Your task to perform on an android device: change notifications settings Image 0: 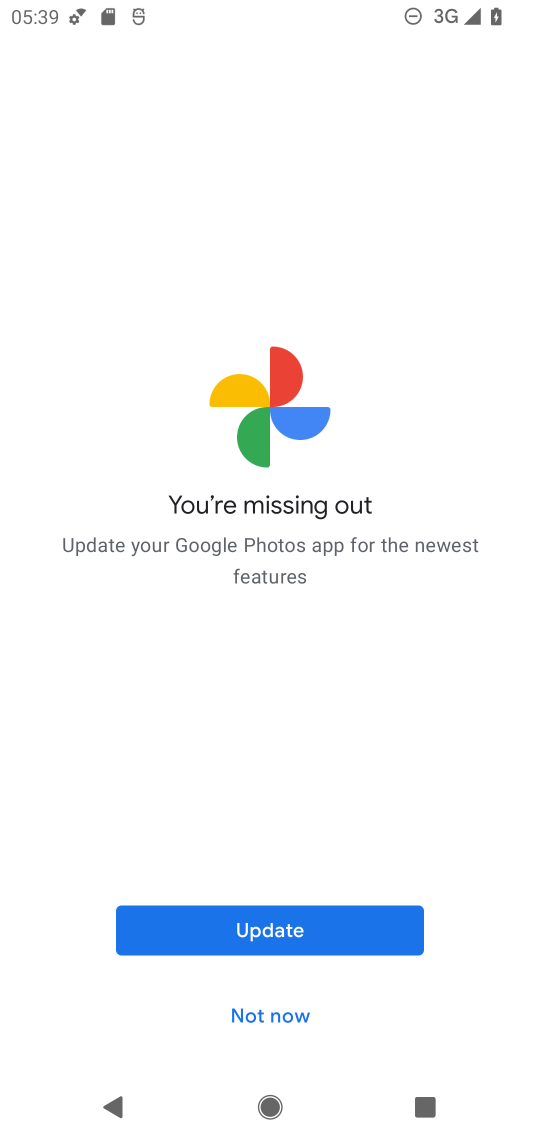
Step 0: press home button
Your task to perform on an android device: change notifications settings Image 1: 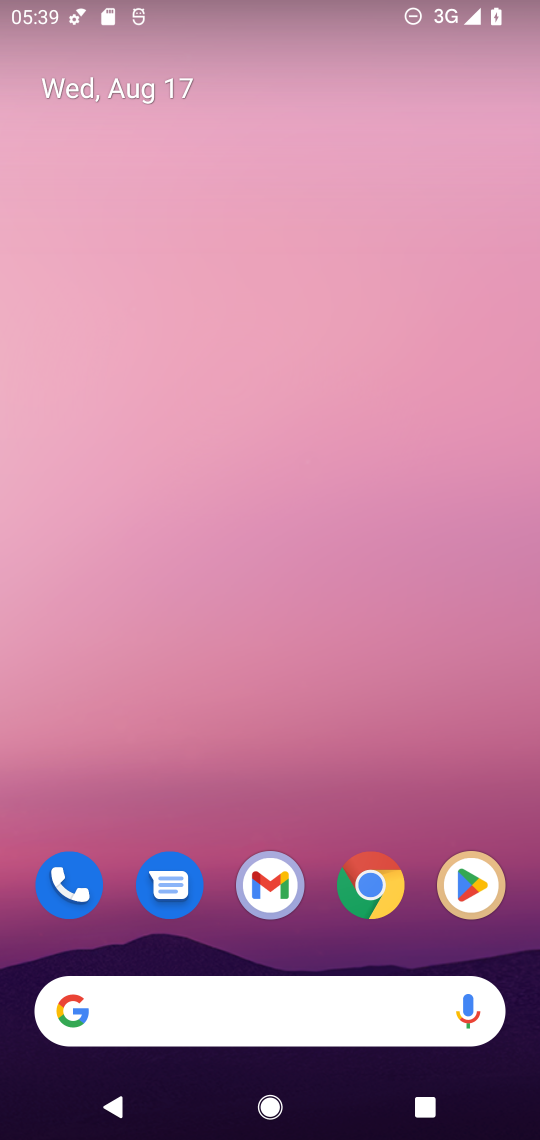
Step 1: drag from (324, 794) to (319, 149)
Your task to perform on an android device: change notifications settings Image 2: 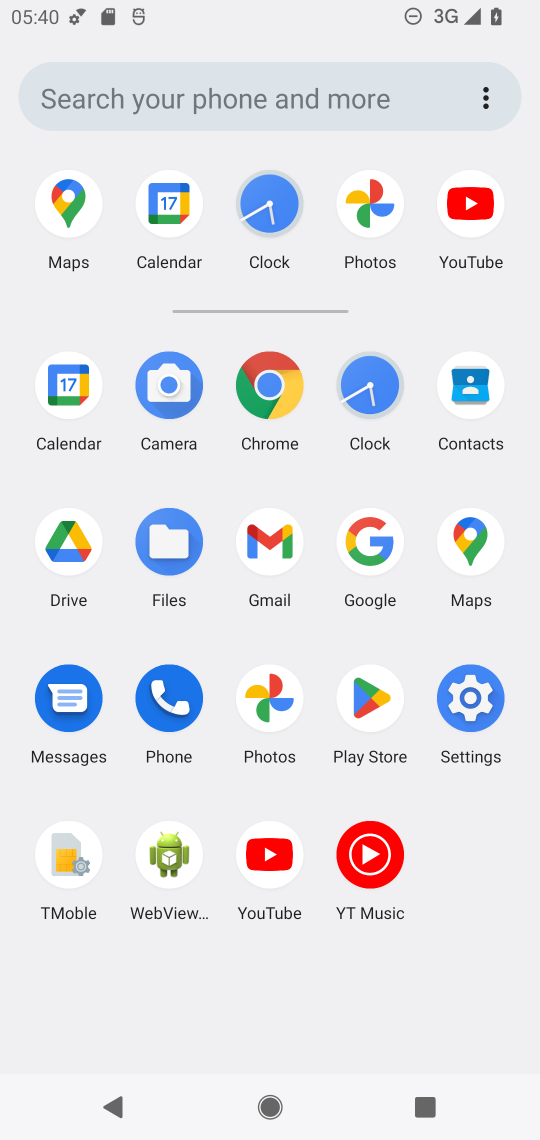
Step 2: click (489, 691)
Your task to perform on an android device: change notifications settings Image 3: 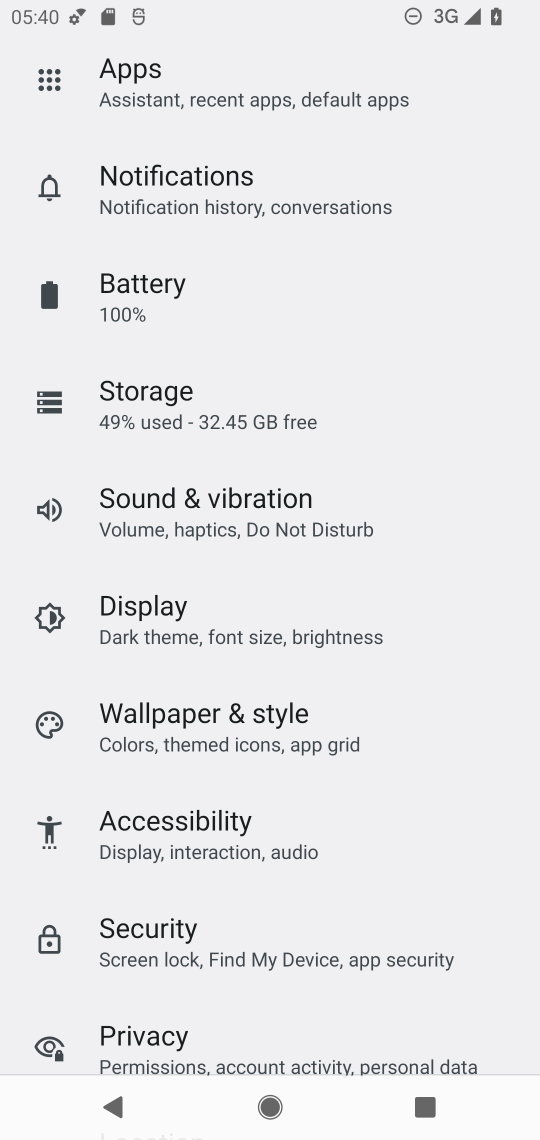
Step 3: click (162, 210)
Your task to perform on an android device: change notifications settings Image 4: 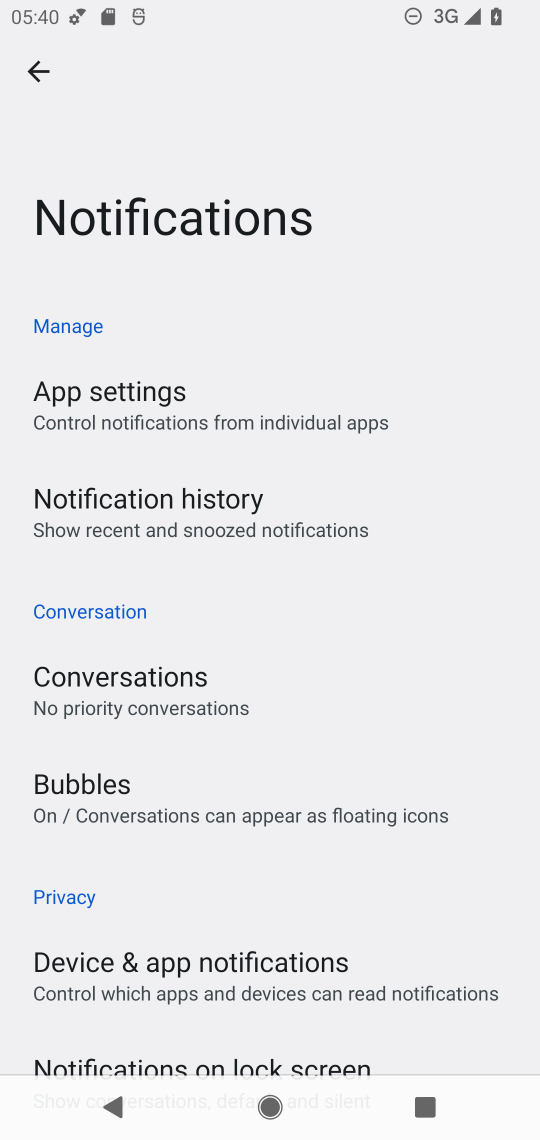
Step 4: task complete